Your task to perform on an android device: Open Google Maps Image 0: 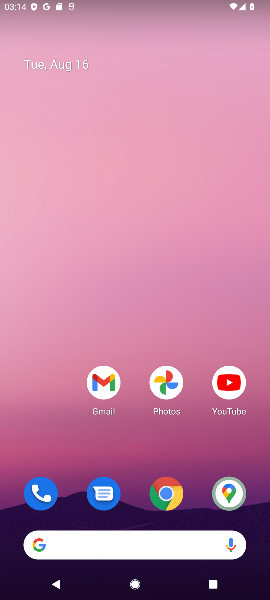
Step 0: press home button
Your task to perform on an android device: Open Google Maps Image 1: 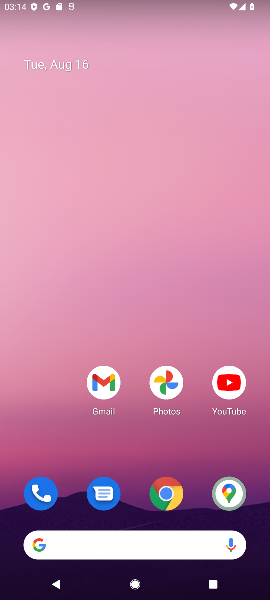
Step 1: drag from (56, 455) to (81, 104)
Your task to perform on an android device: Open Google Maps Image 2: 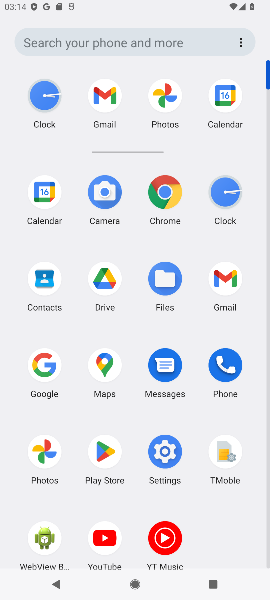
Step 2: click (102, 368)
Your task to perform on an android device: Open Google Maps Image 3: 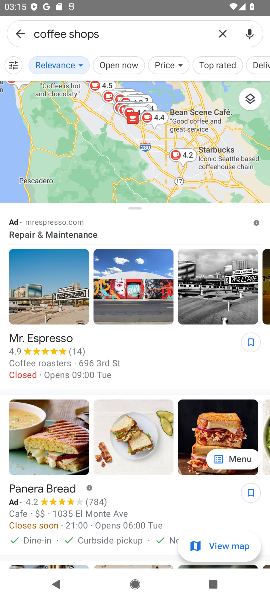
Step 3: task complete